Your task to perform on an android device: Add "logitech g pro" to the cart on ebay.com, then select checkout. Image 0: 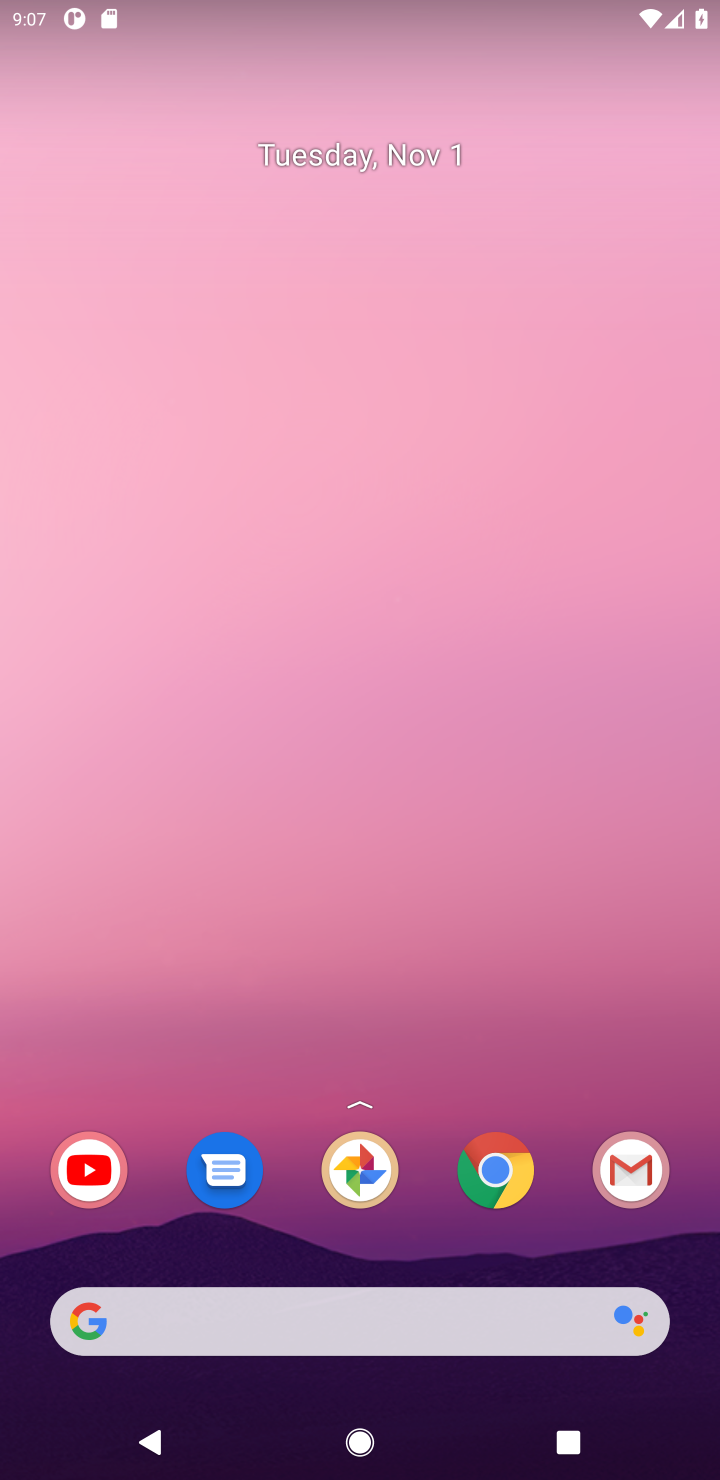
Step 0: click (496, 1197)
Your task to perform on an android device: Add "logitech g pro" to the cart on ebay.com, then select checkout. Image 1: 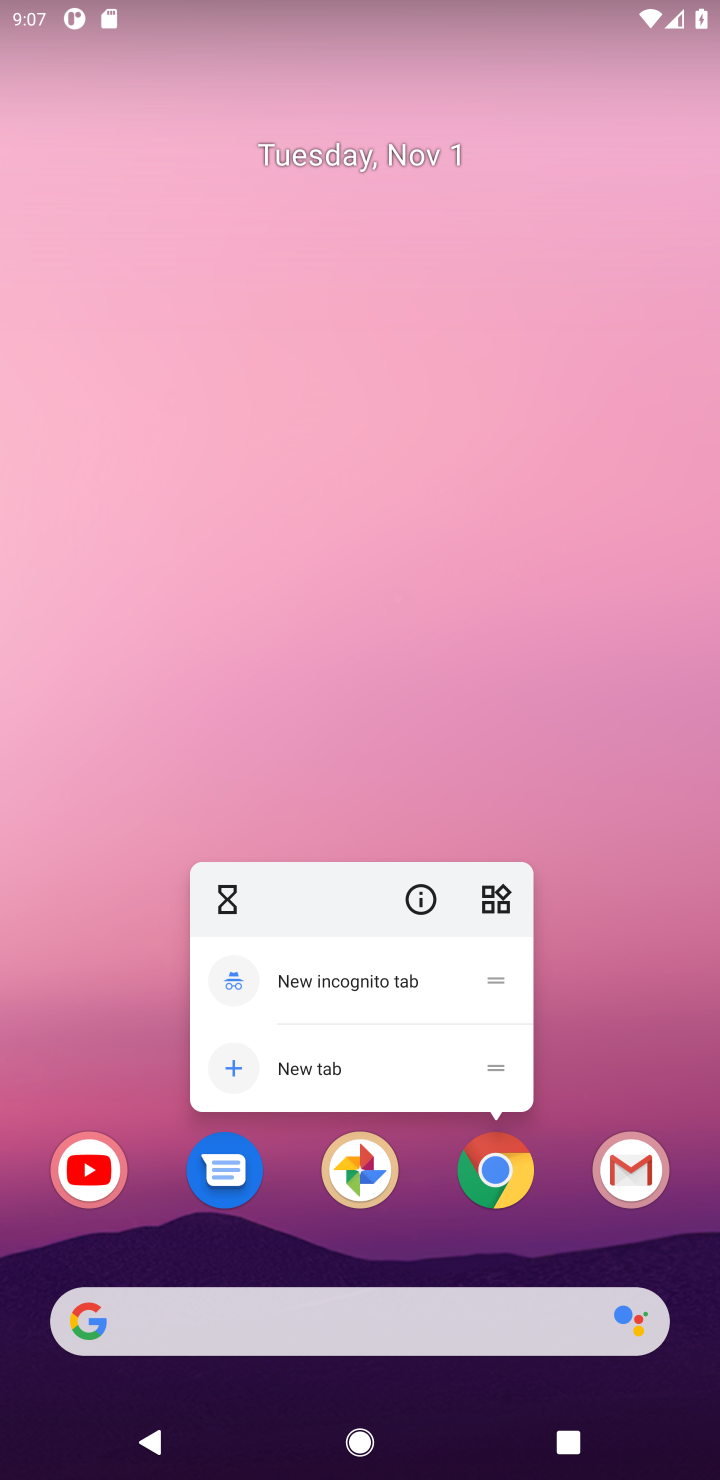
Step 1: click (512, 1189)
Your task to perform on an android device: Add "logitech g pro" to the cart on ebay.com, then select checkout. Image 2: 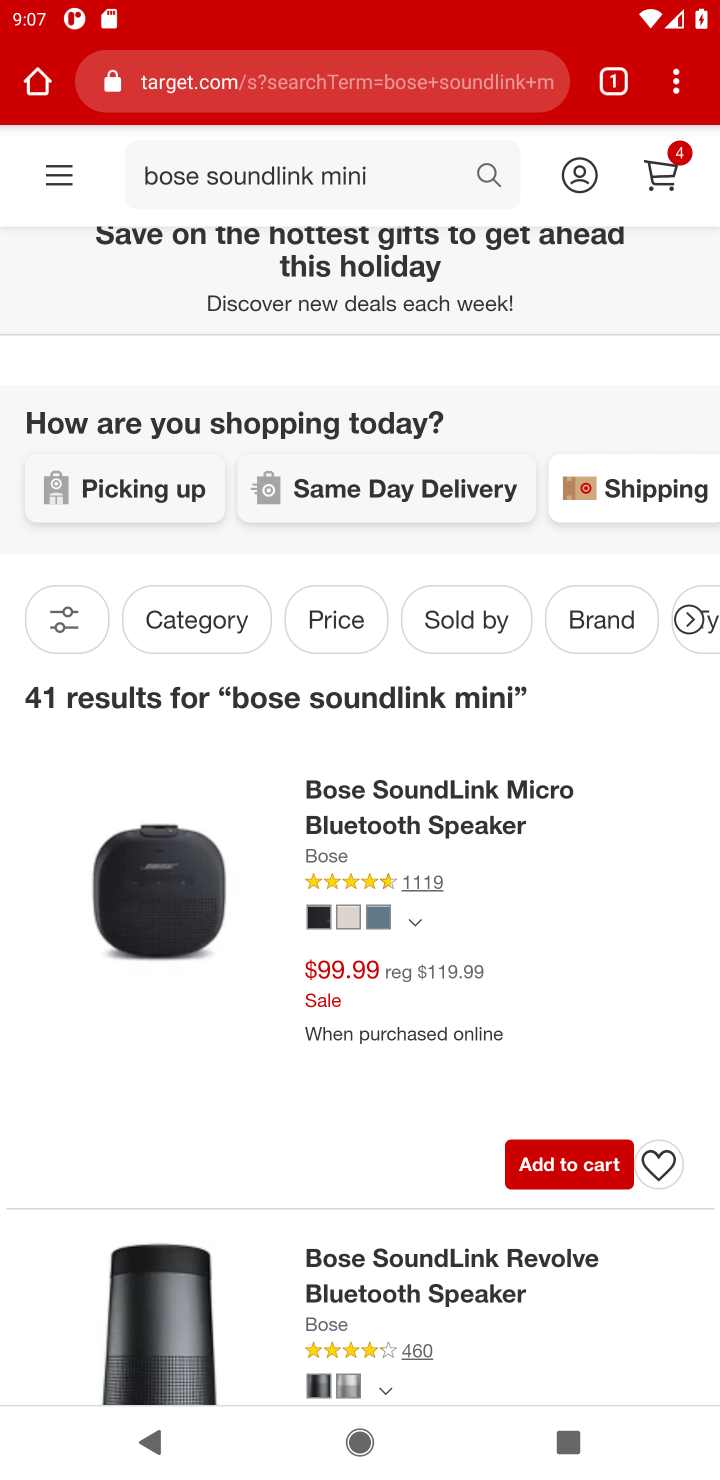
Step 2: click (283, 79)
Your task to perform on an android device: Add "logitech g pro" to the cart on ebay.com, then select checkout. Image 3: 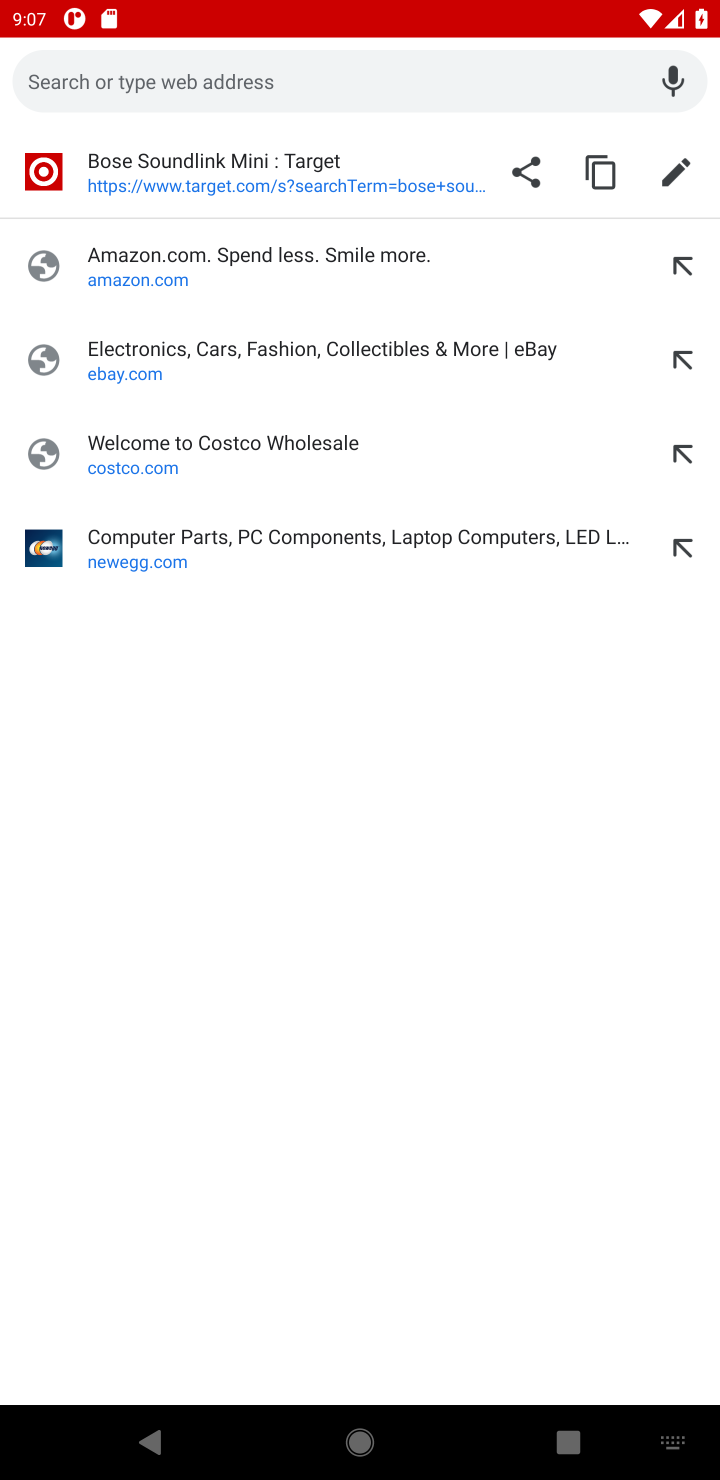
Step 3: type "ebay.com"
Your task to perform on an android device: Add "logitech g pro" to the cart on ebay.com, then select checkout. Image 4: 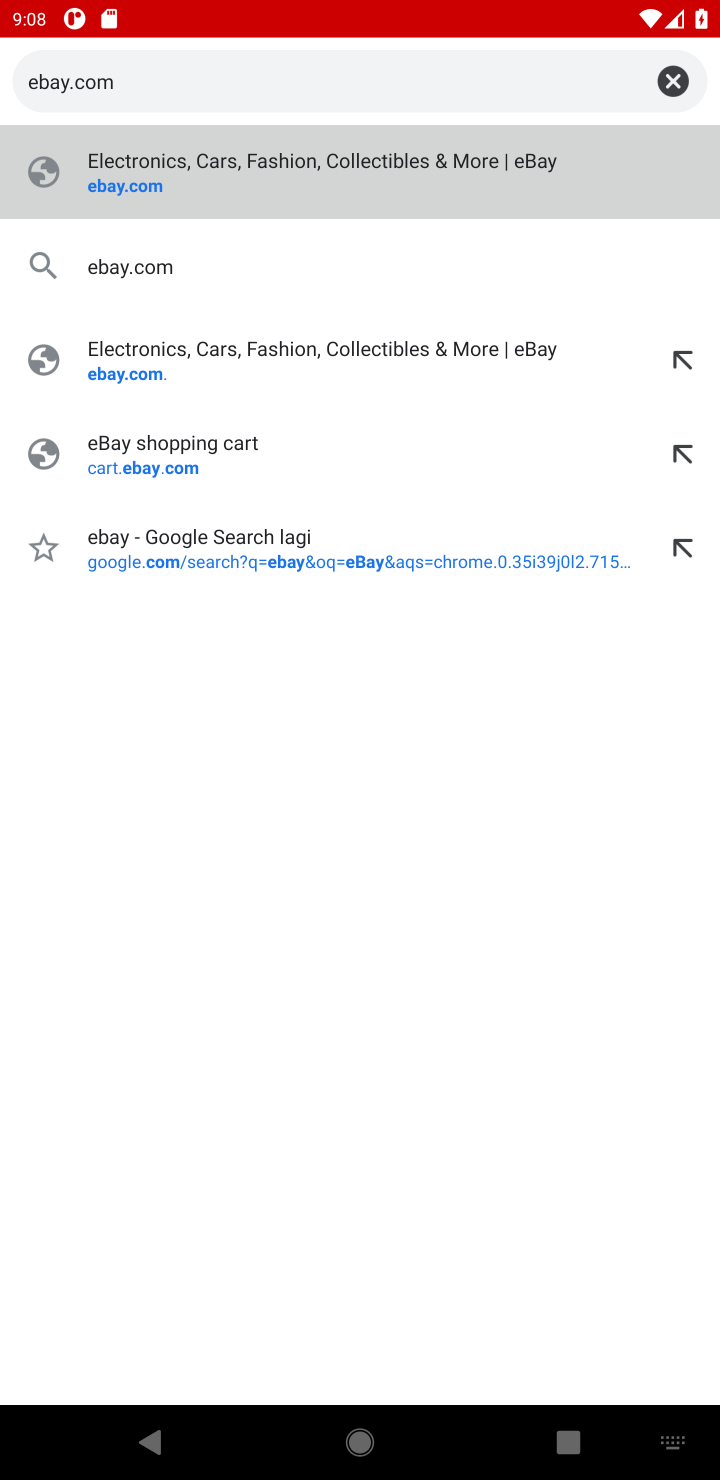
Step 4: press enter
Your task to perform on an android device: Add "logitech g pro" to the cart on ebay.com, then select checkout. Image 5: 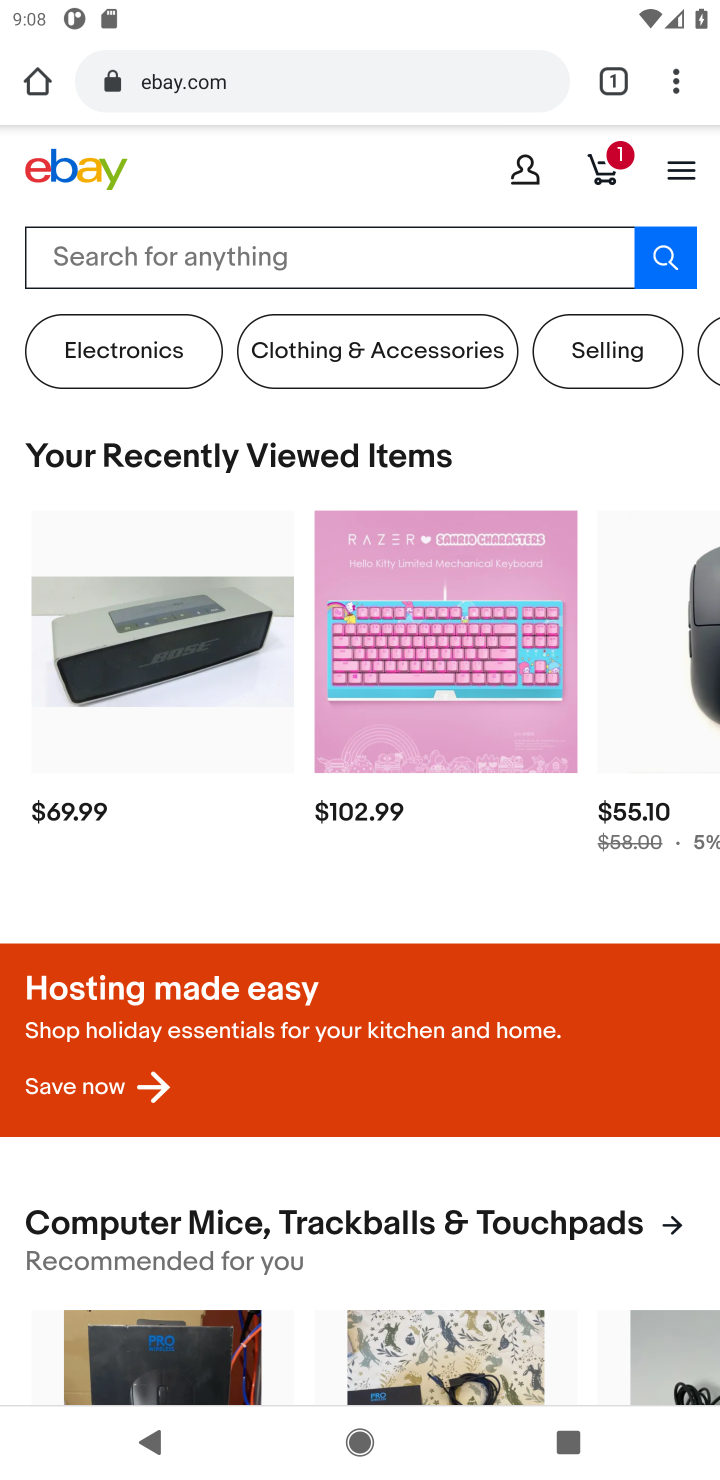
Step 5: click (326, 258)
Your task to perform on an android device: Add "logitech g pro" to the cart on ebay.com, then select checkout. Image 6: 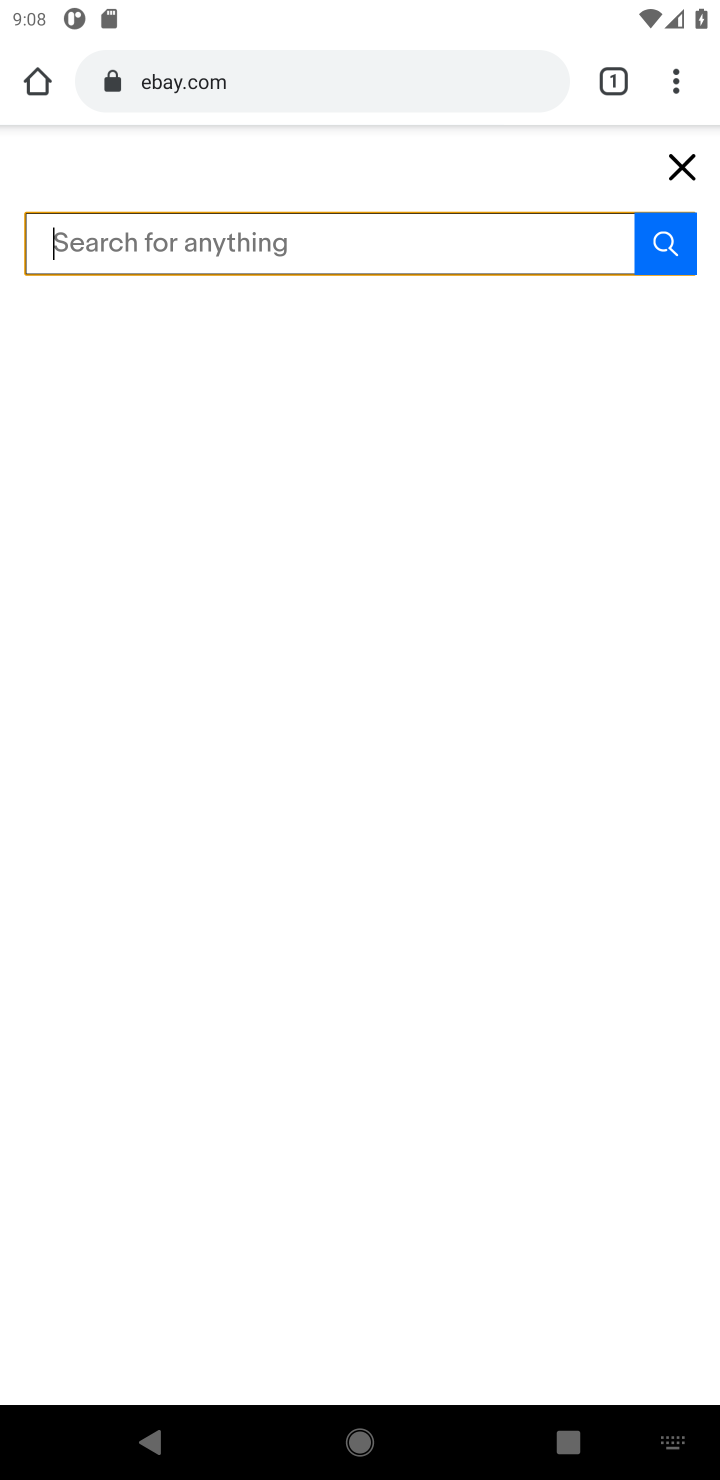
Step 6: type "logitech g pro"
Your task to perform on an android device: Add "logitech g pro" to the cart on ebay.com, then select checkout. Image 7: 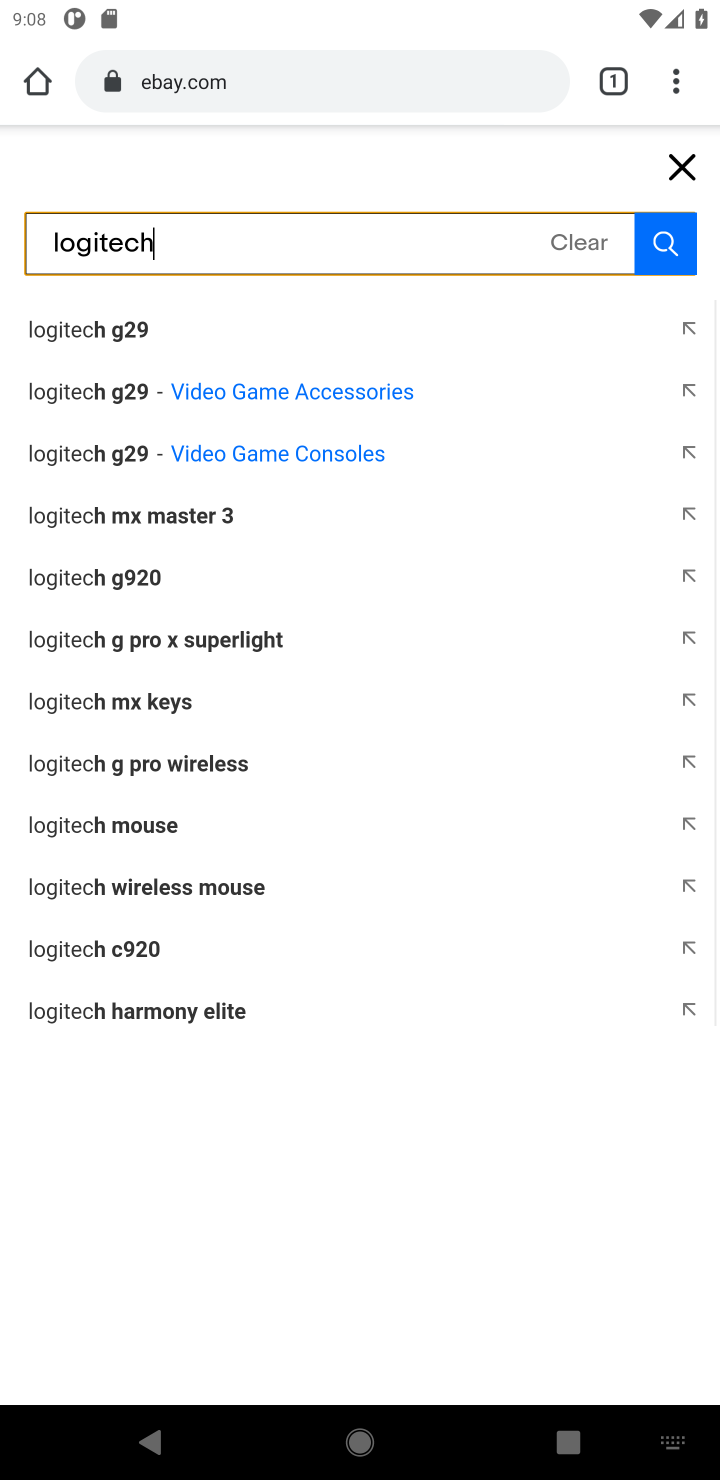
Step 7: type ""
Your task to perform on an android device: Add "logitech g pro" to the cart on ebay.com, then select checkout. Image 8: 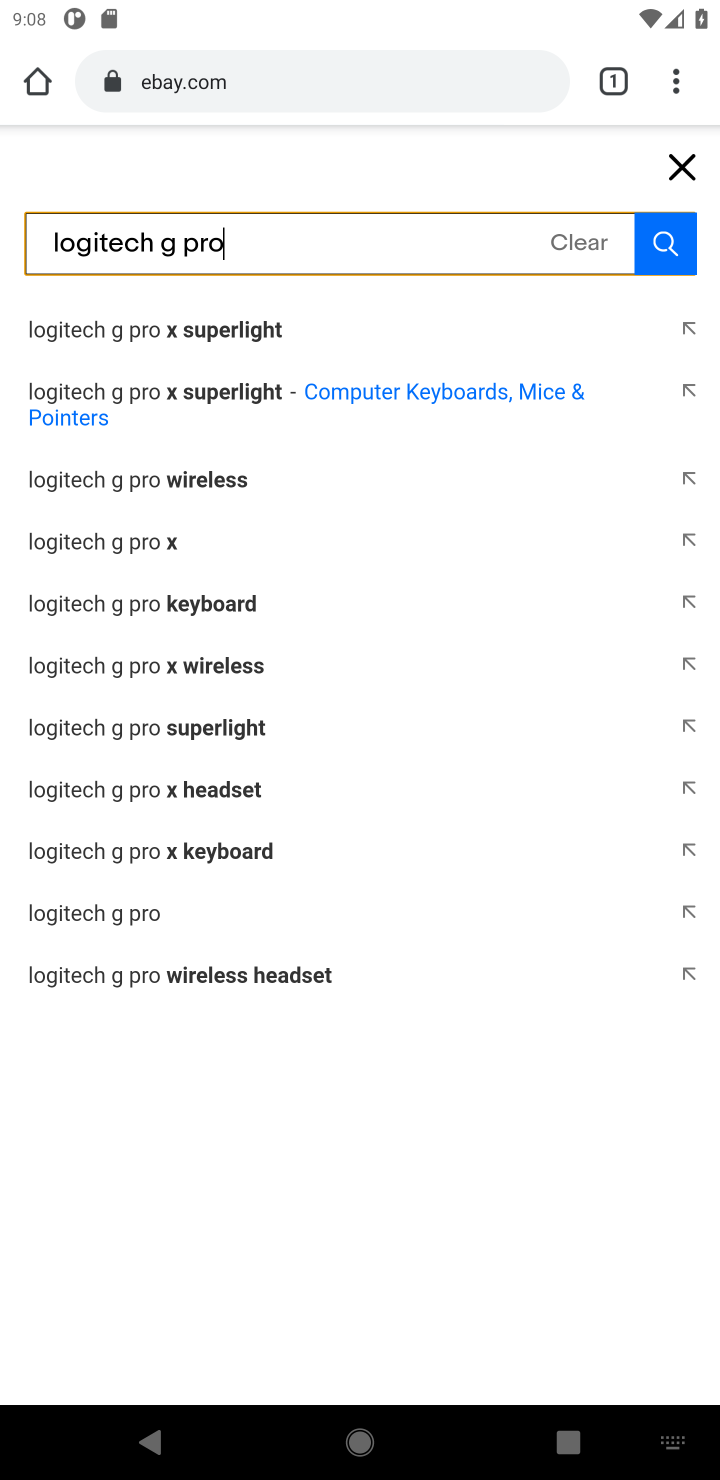
Step 8: press enter
Your task to perform on an android device: Add "logitech g pro" to the cart on ebay.com, then select checkout. Image 9: 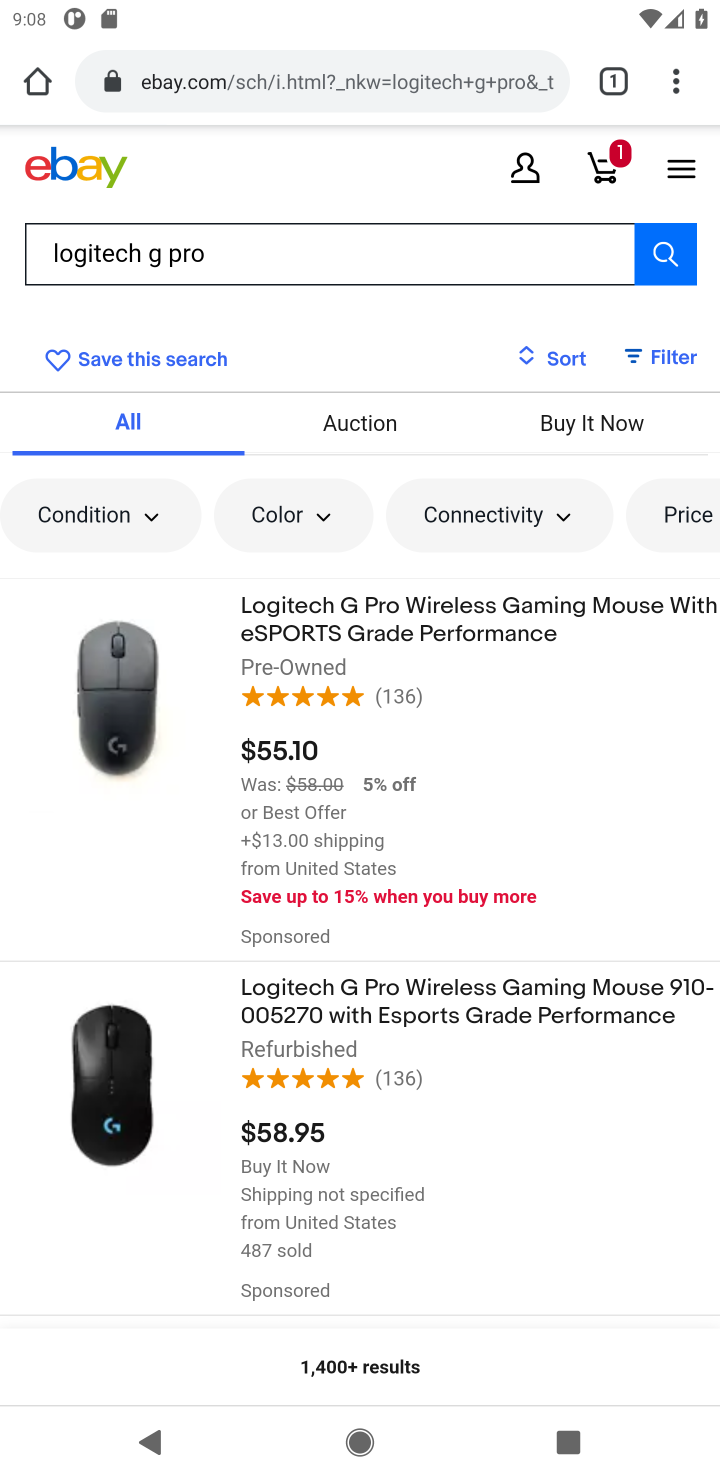
Step 9: click (416, 618)
Your task to perform on an android device: Add "logitech g pro" to the cart on ebay.com, then select checkout. Image 10: 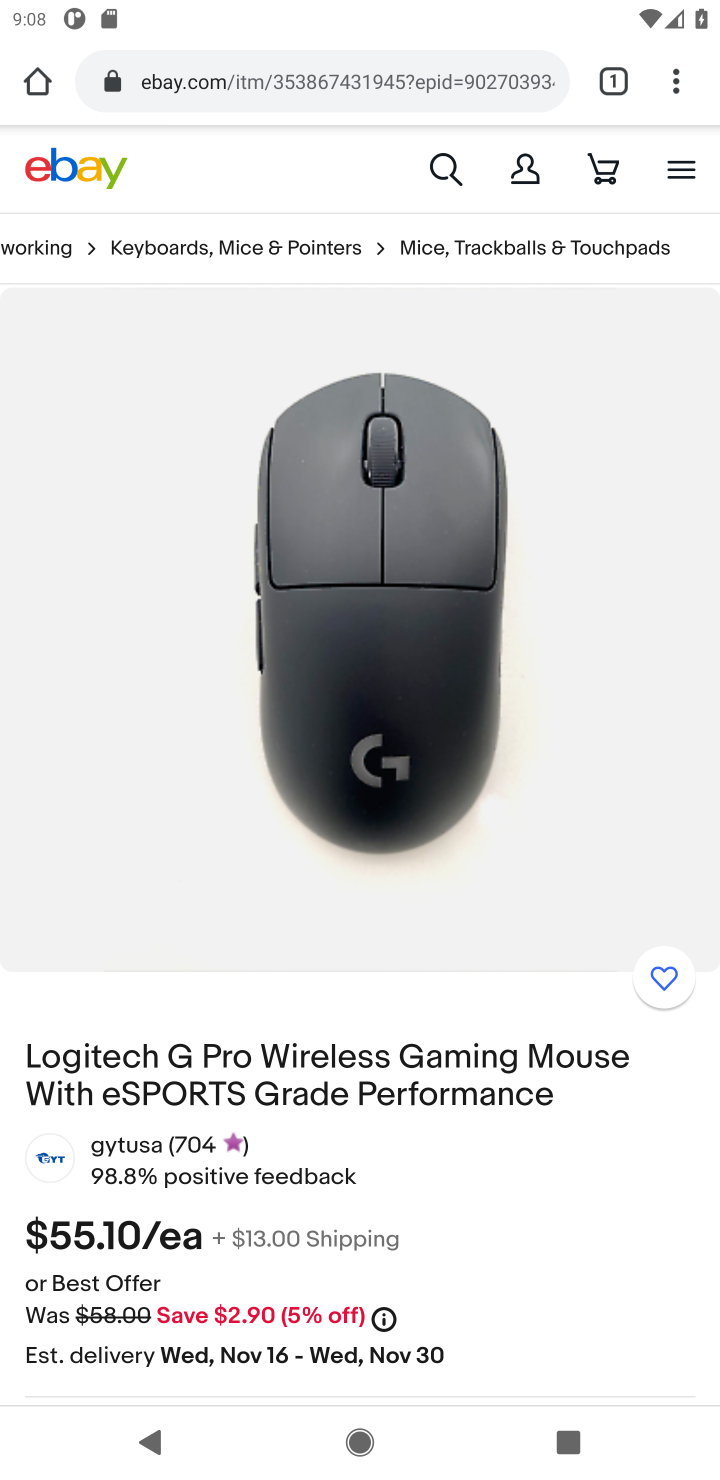
Step 10: drag from (545, 1180) to (468, 508)
Your task to perform on an android device: Add "logitech g pro" to the cart on ebay.com, then select checkout. Image 11: 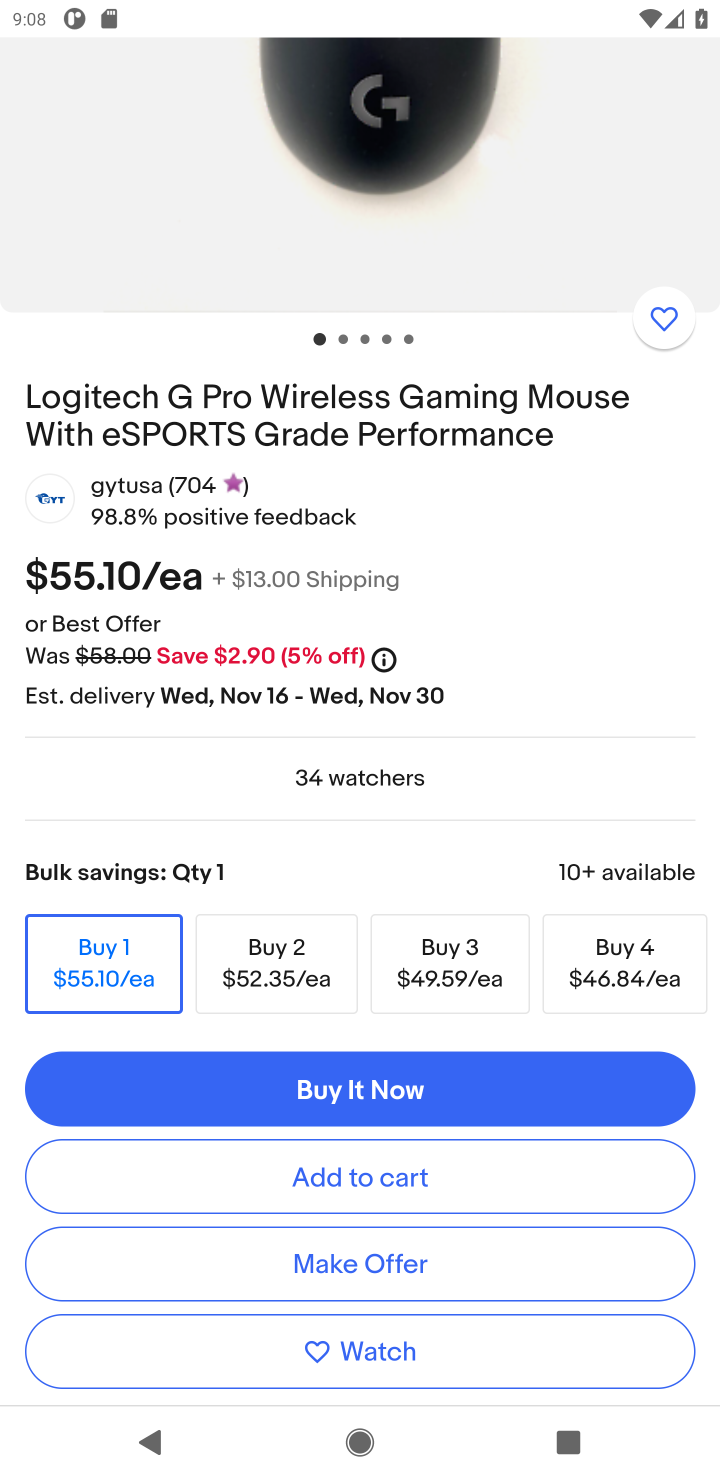
Step 11: click (397, 1171)
Your task to perform on an android device: Add "logitech g pro" to the cart on ebay.com, then select checkout. Image 12: 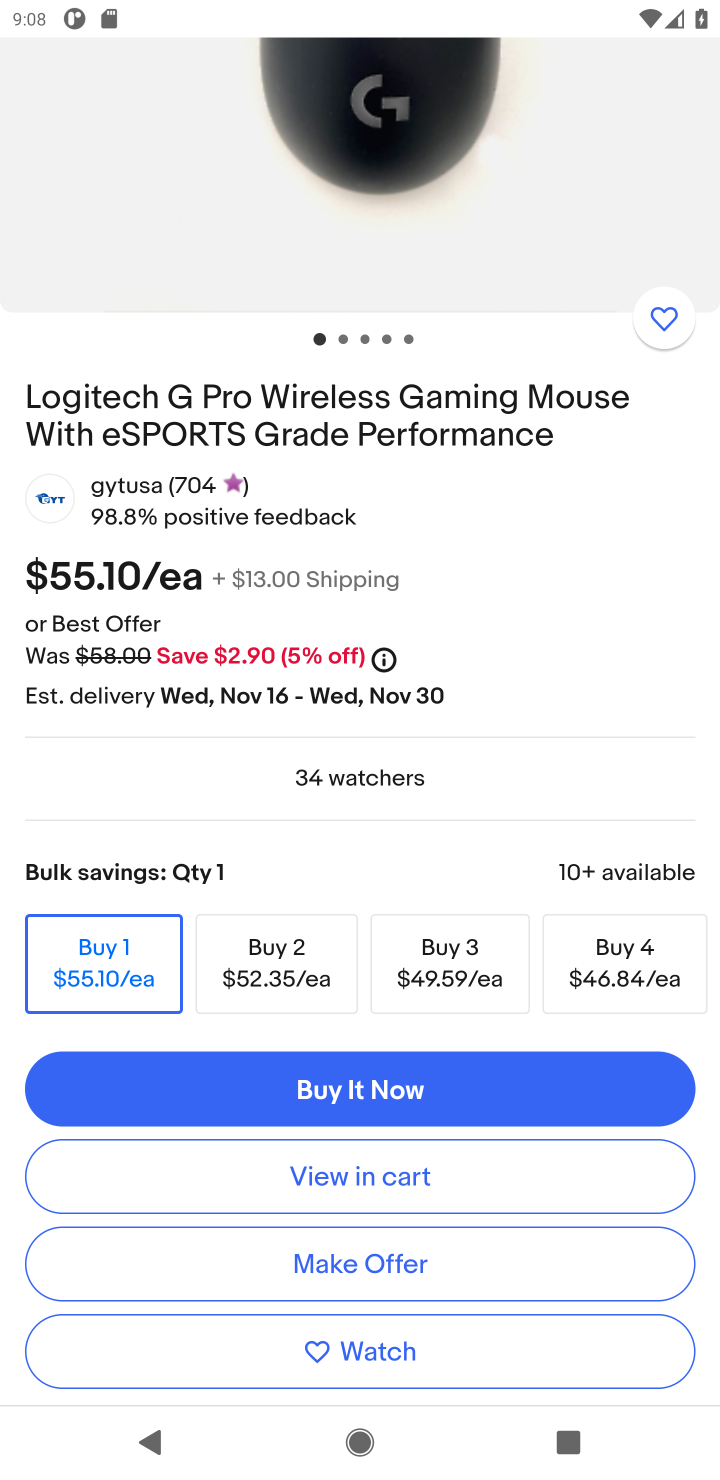
Step 12: click (397, 1171)
Your task to perform on an android device: Add "logitech g pro" to the cart on ebay.com, then select checkout. Image 13: 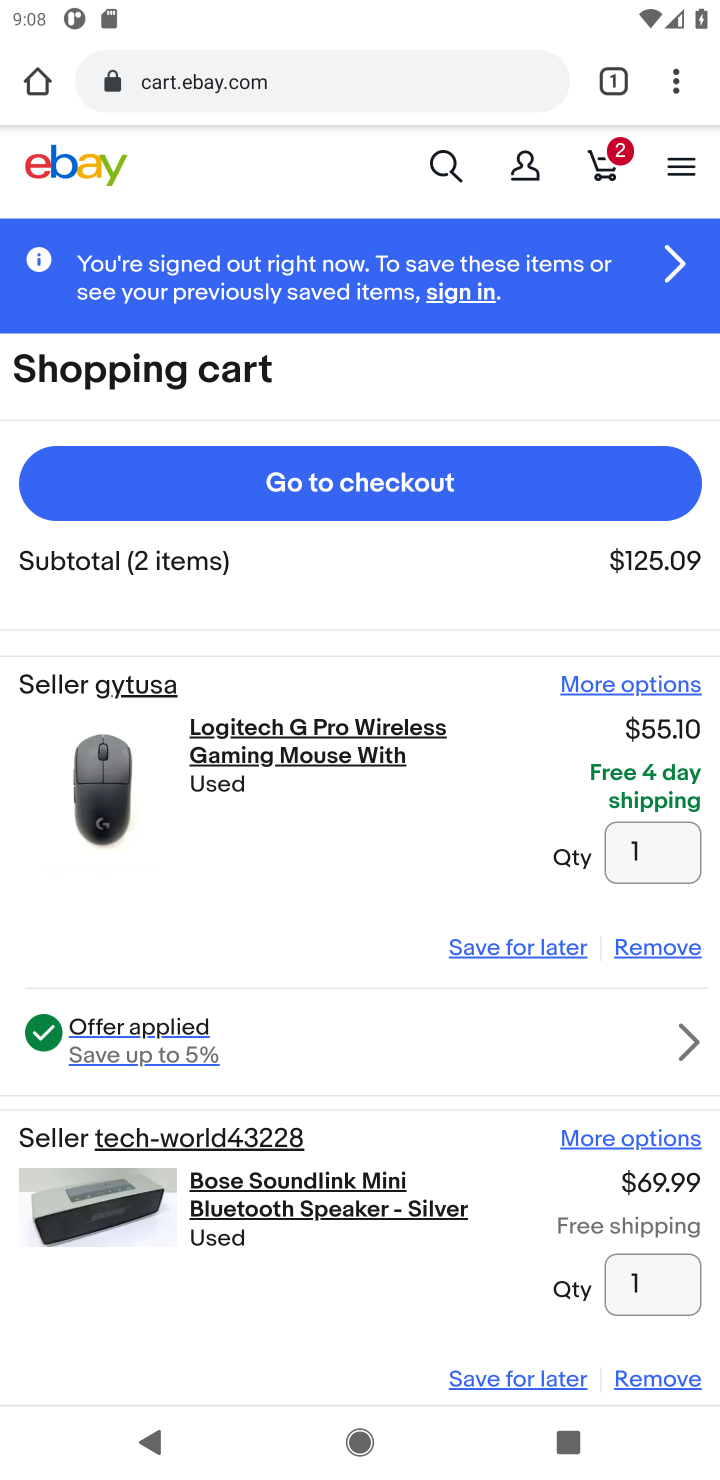
Step 13: click (543, 487)
Your task to perform on an android device: Add "logitech g pro" to the cart on ebay.com, then select checkout. Image 14: 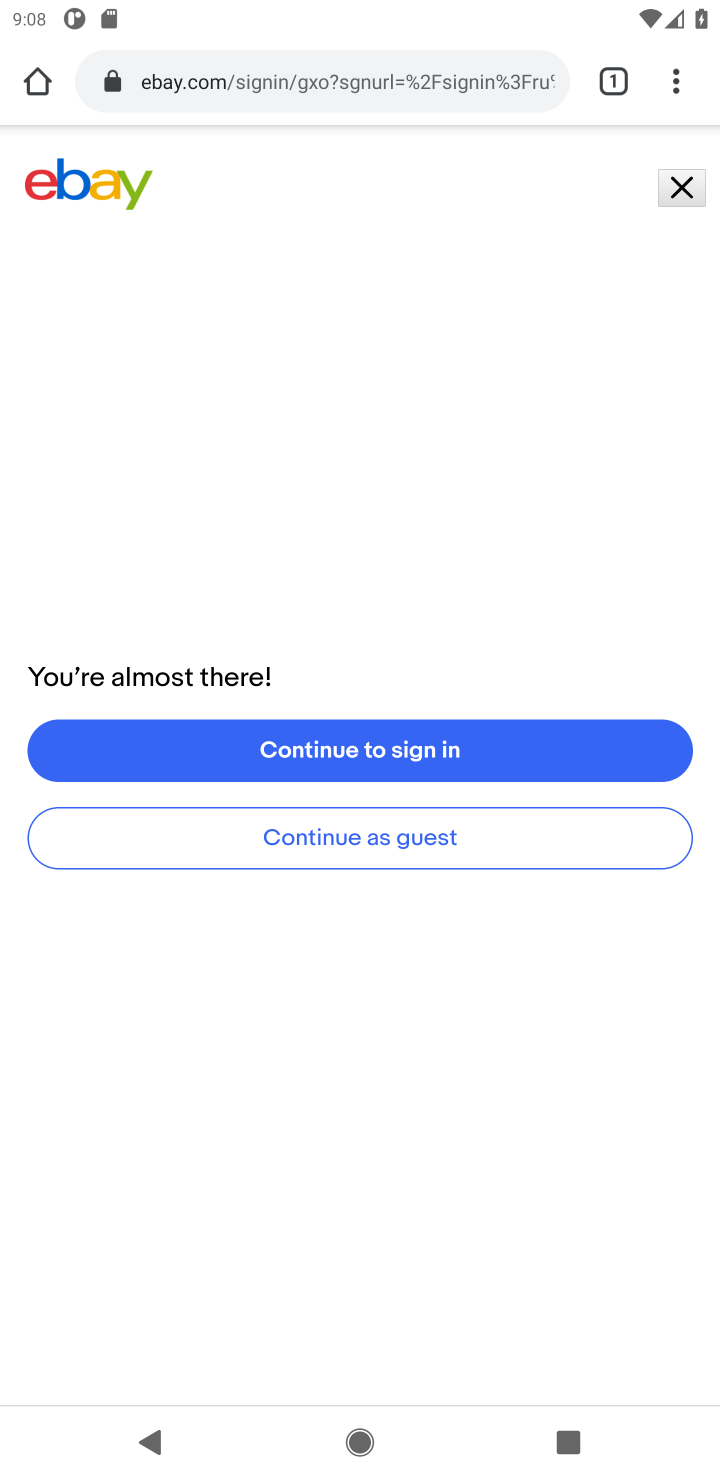
Step 14: click (378, 844)
Your task to perform on an android device: Add "logitech g pro" to the cart on ebay.com, then select checkout. Image 15: 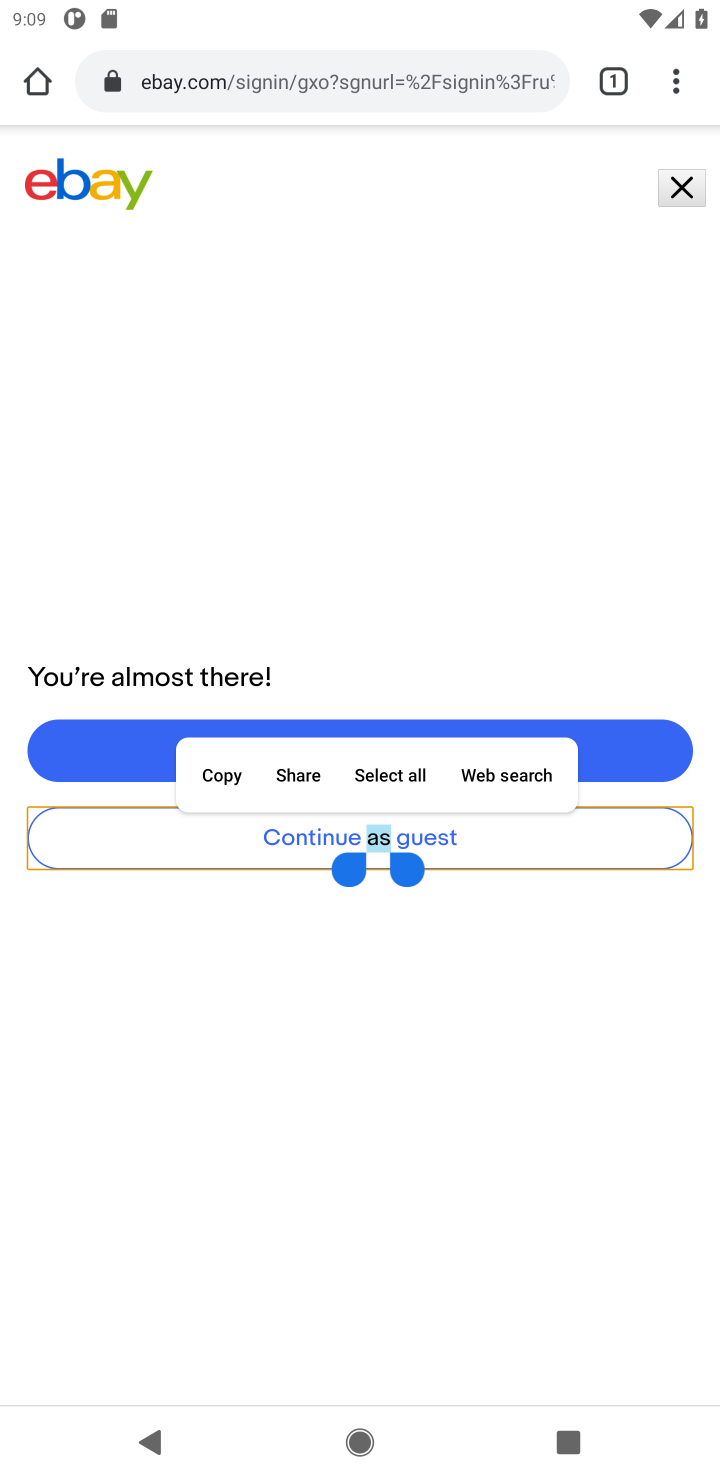
Step 15: click (549, 839)
Your task to perform on an android device: Add "logitech g pro" to the cart on ebay.com, then select checkout. Image 16: 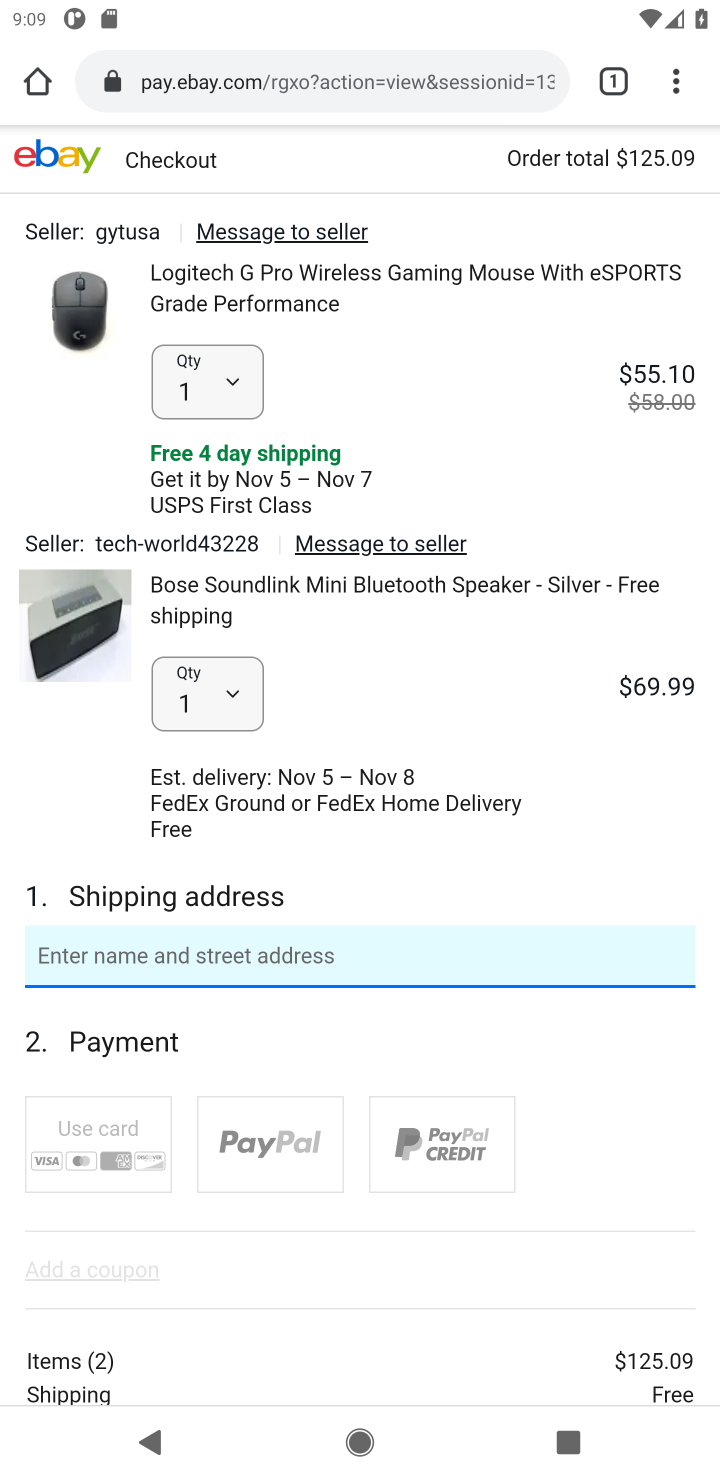
Step 16: task complete